Your task to perform on an android device: Is it going to rain today? Image 0: 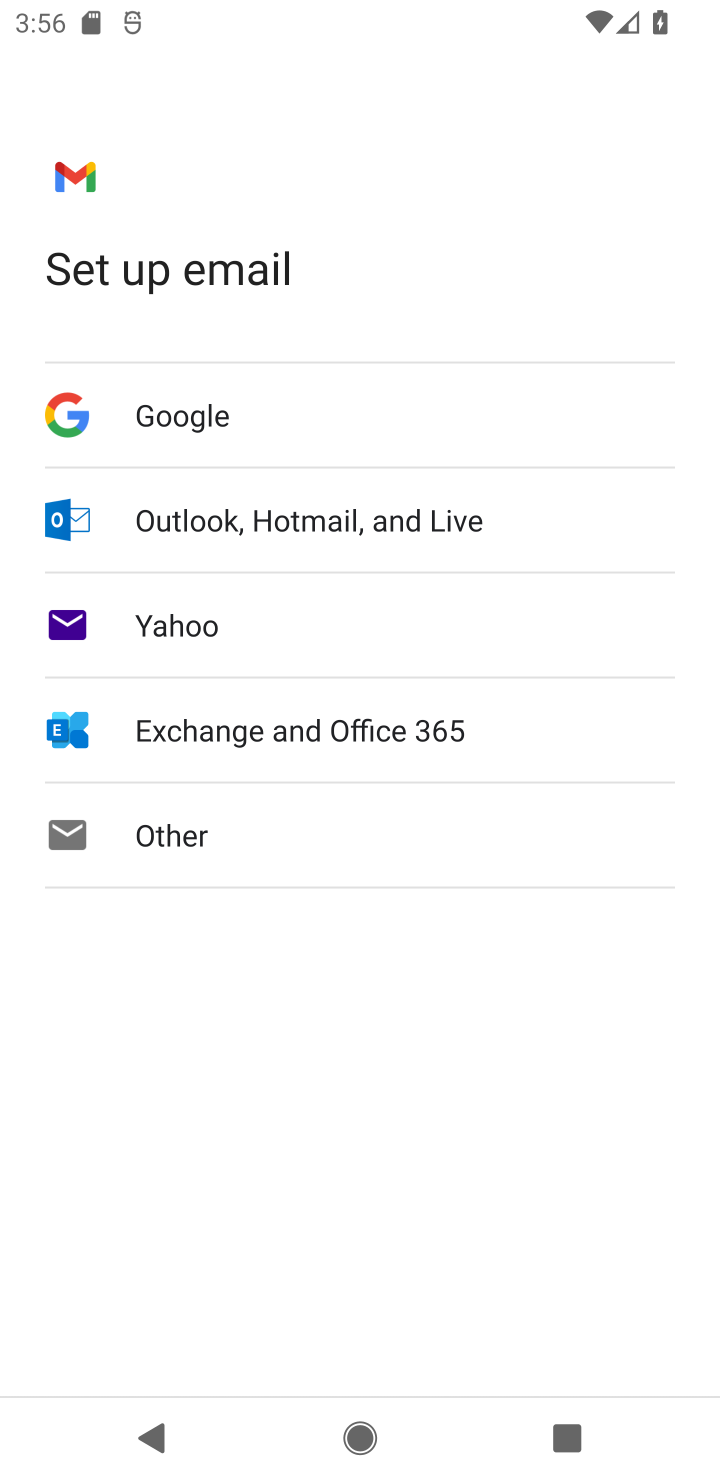
Step 0: press back button
Your task to perform on an android device: Is it going to rain today? Image 1: 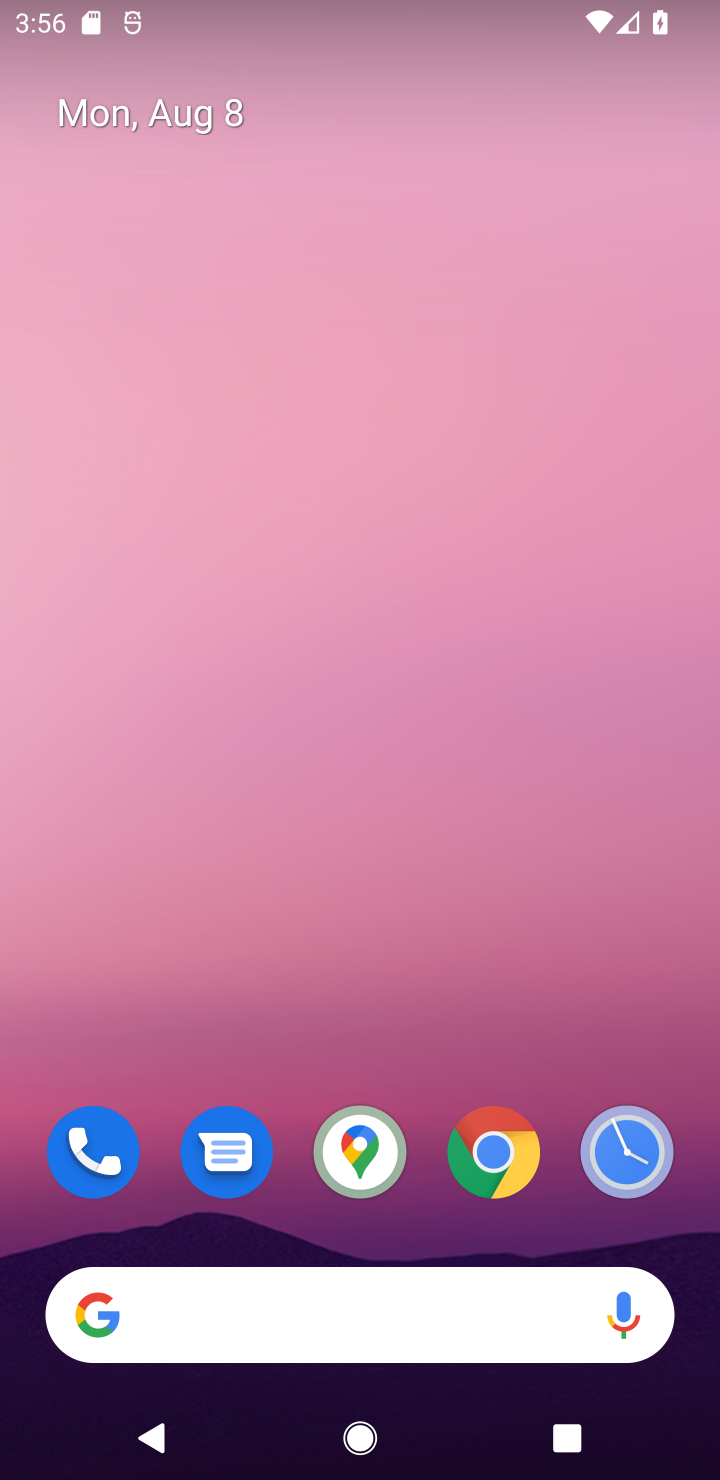
Step 1: drag from (422, 768) to (491, 23)
Your task to perform on an android device: Is it going to rain today? Image 2: 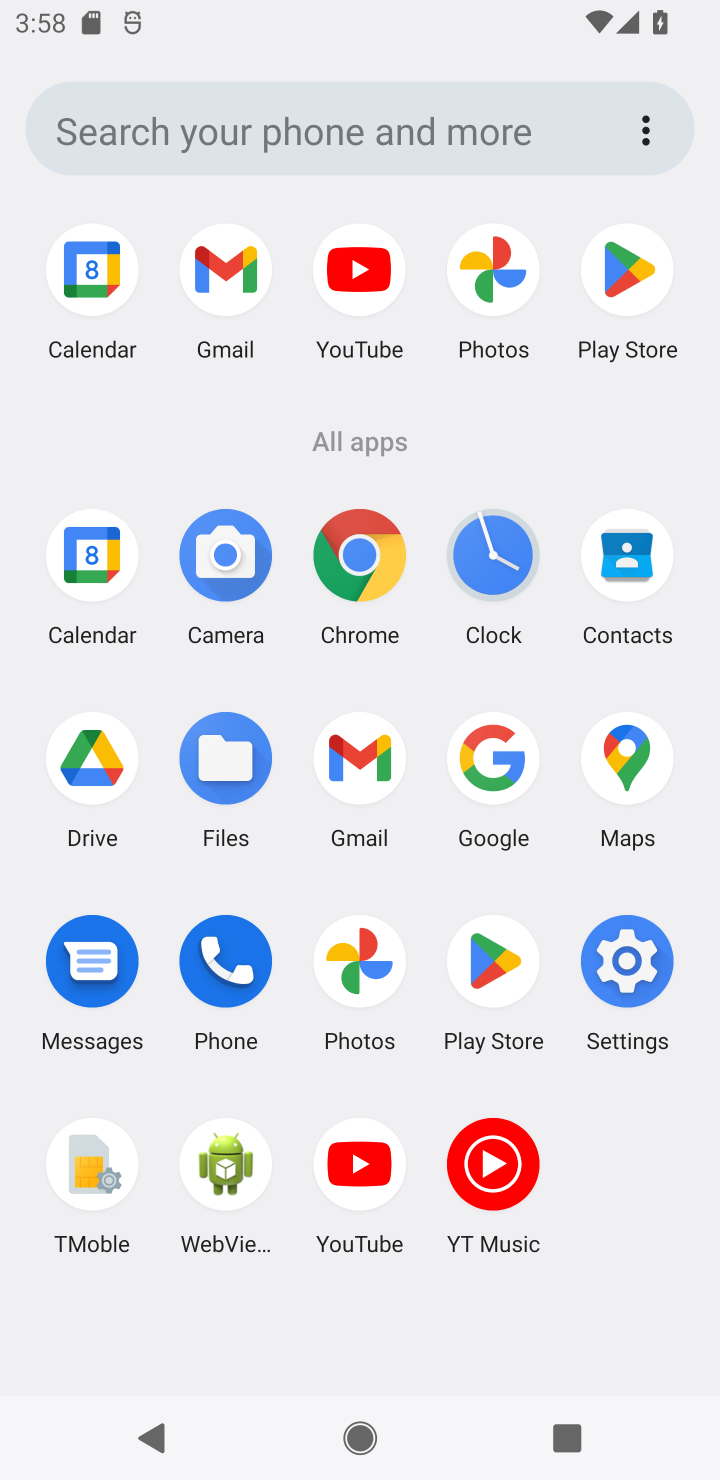
Step 2: click (270, 121)
Your task to perform on an android device: Is it going to rain today? Image 3: 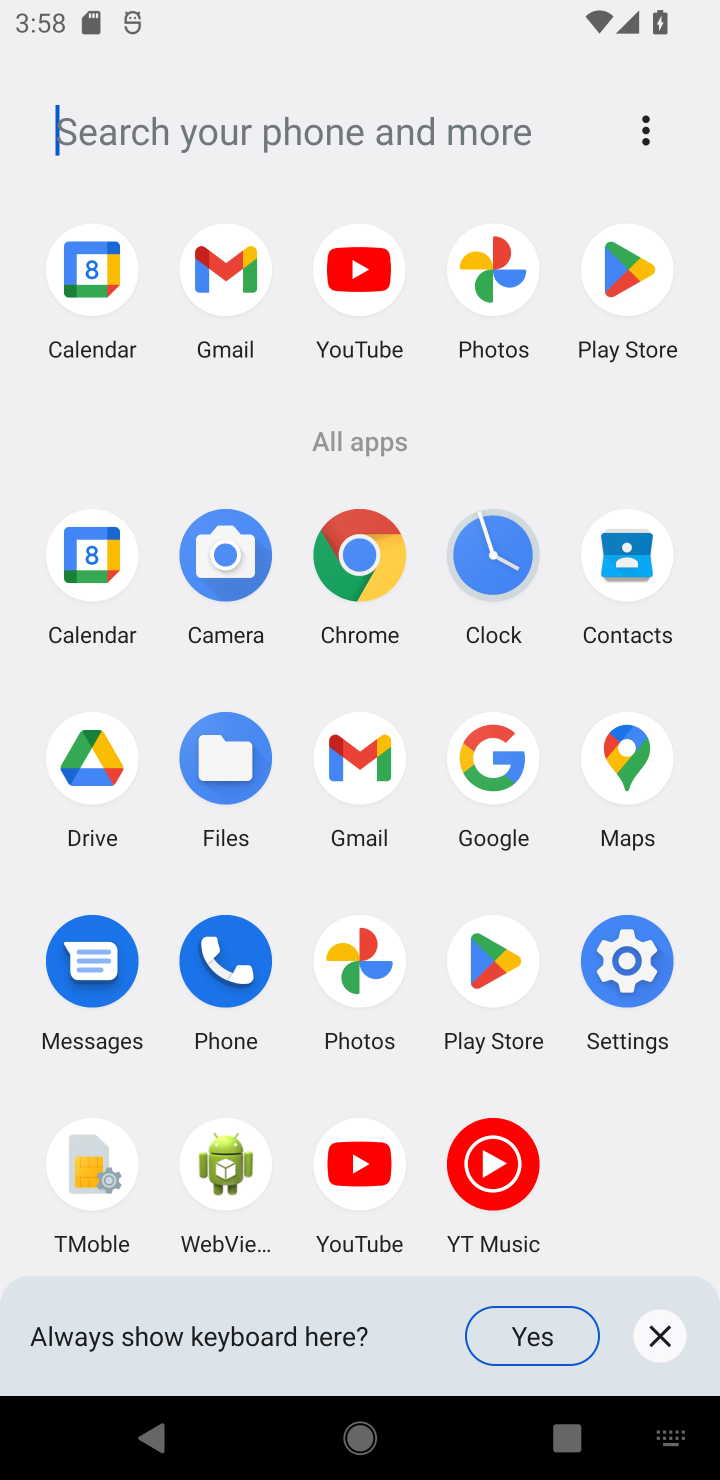
Step 3: click (253, 140)
Your task to perform on an android device: Is it going to rain today? Image 4: 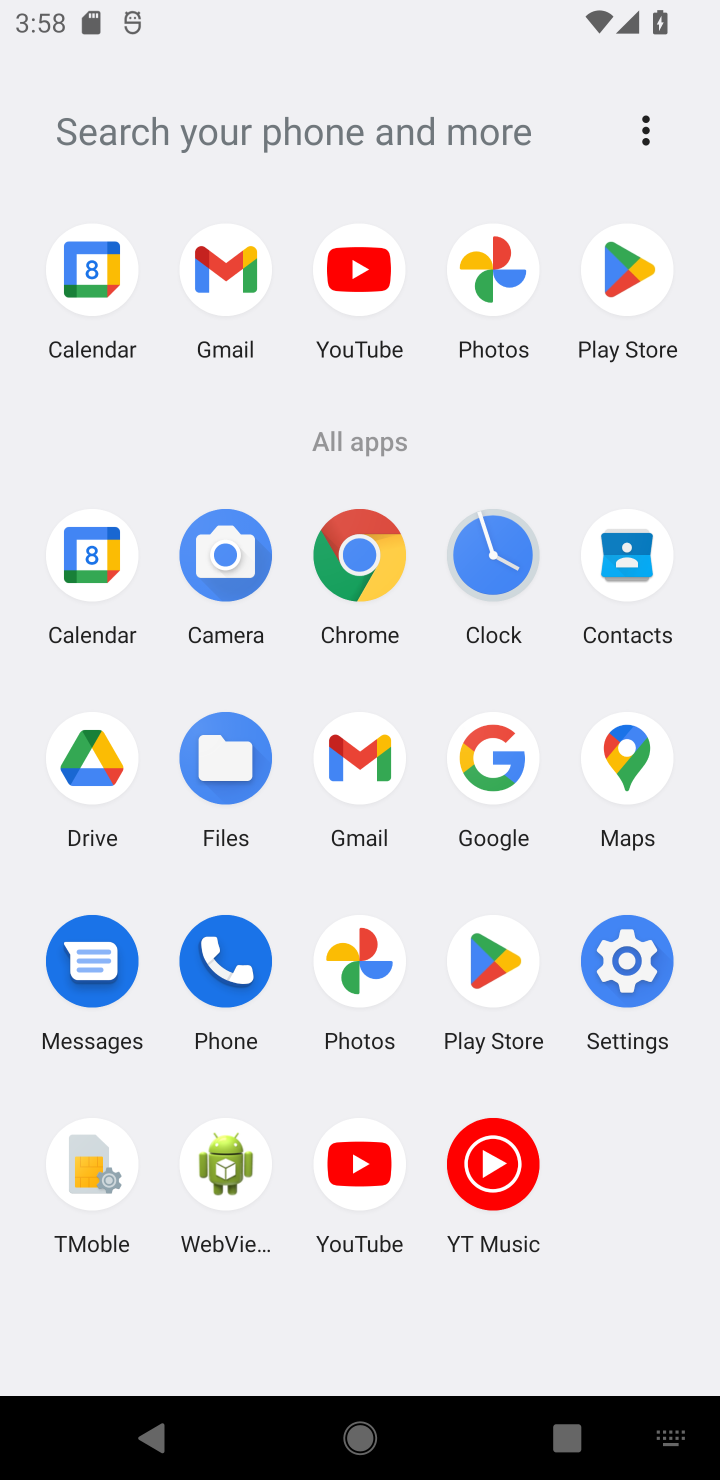
Step 4: click (477, 763)
Your task to perform on an android device: Is it going to rain today? Image 5: 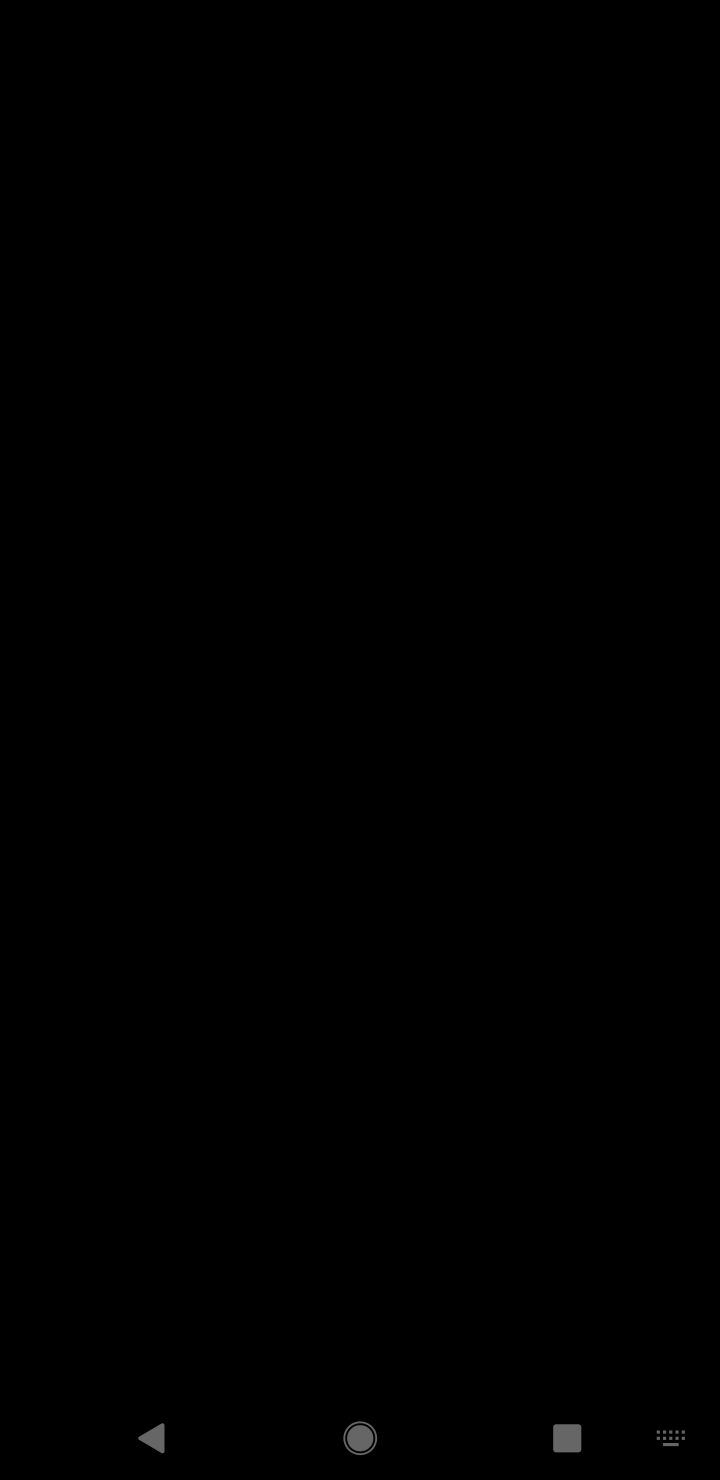
Step 5: drag from (219, 224) to (264, 101)
Your task to perform on an android device: Is it going to rain today? Image 6: 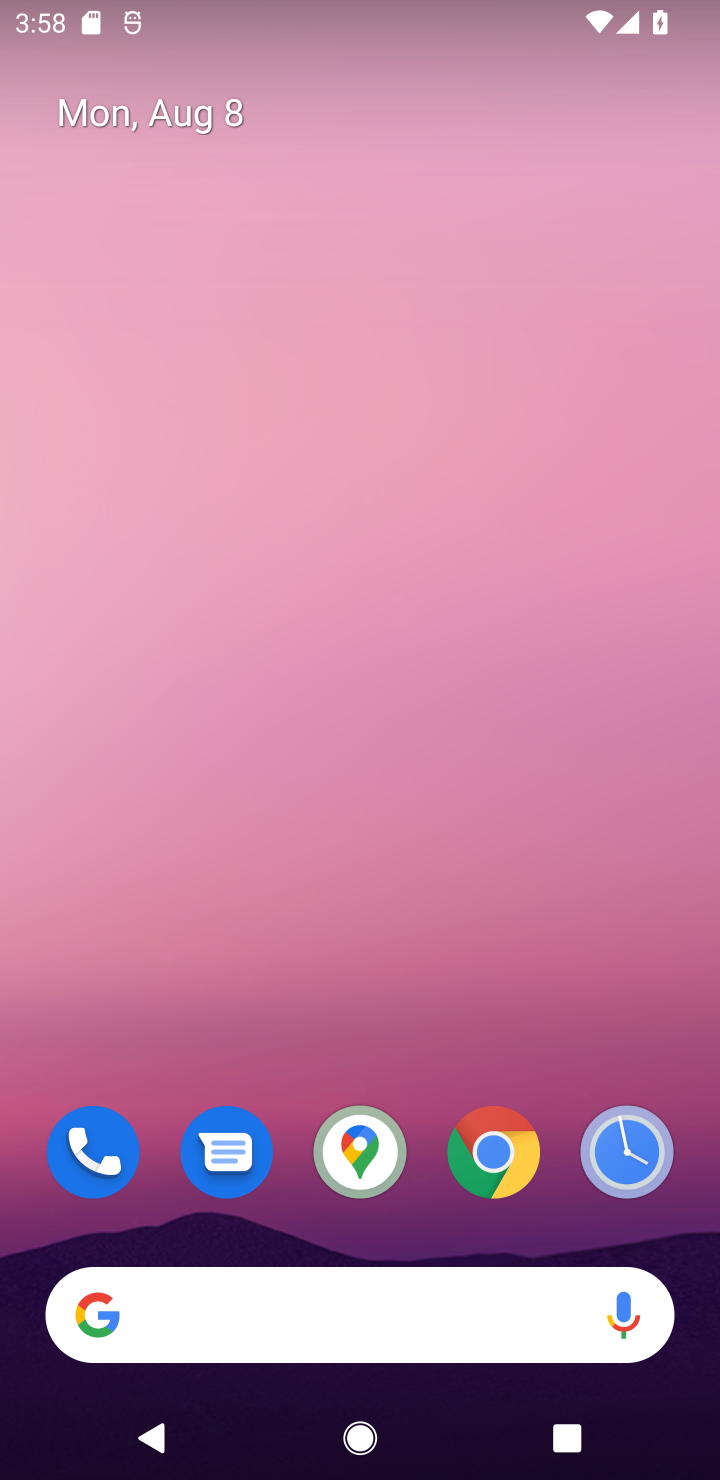
Step 6: click (455, 68)
Your task to perform on an android device: Is it going to rain today? Image 7: 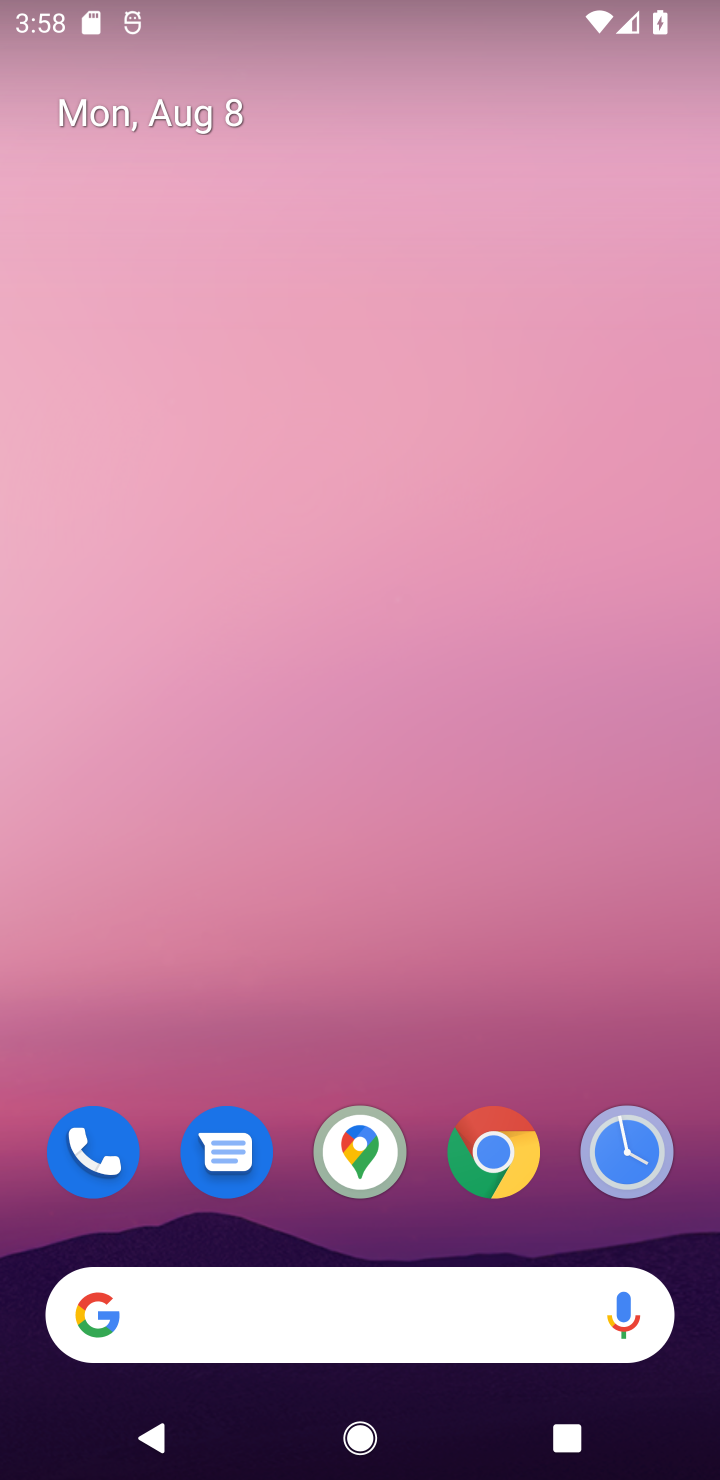
Step 7: drag from (282, 944) to (480, 47)
Your task to perform on an android device: Is it going to rain today? Image 8: 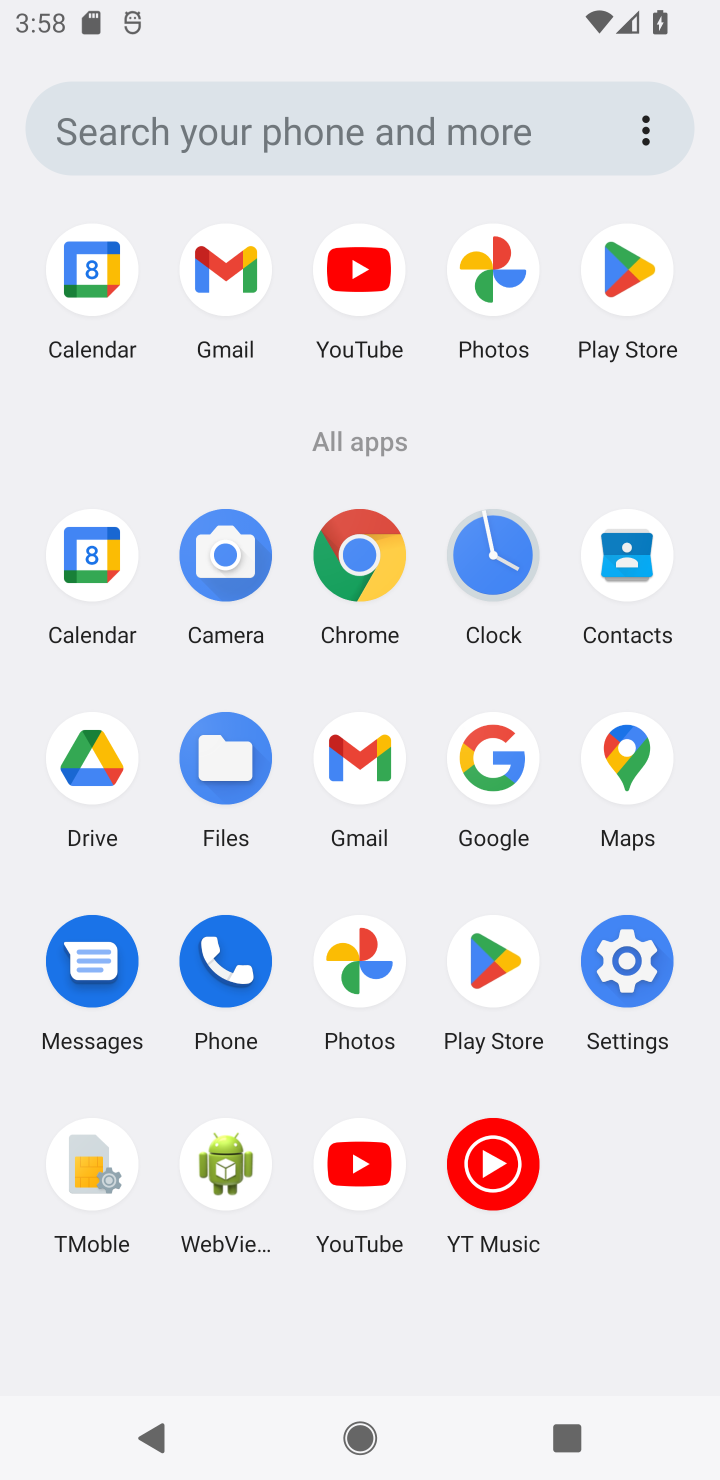
Step 8: click (487, 761)
Your task to perform on an android device: Is it going to rain today? Image 9: 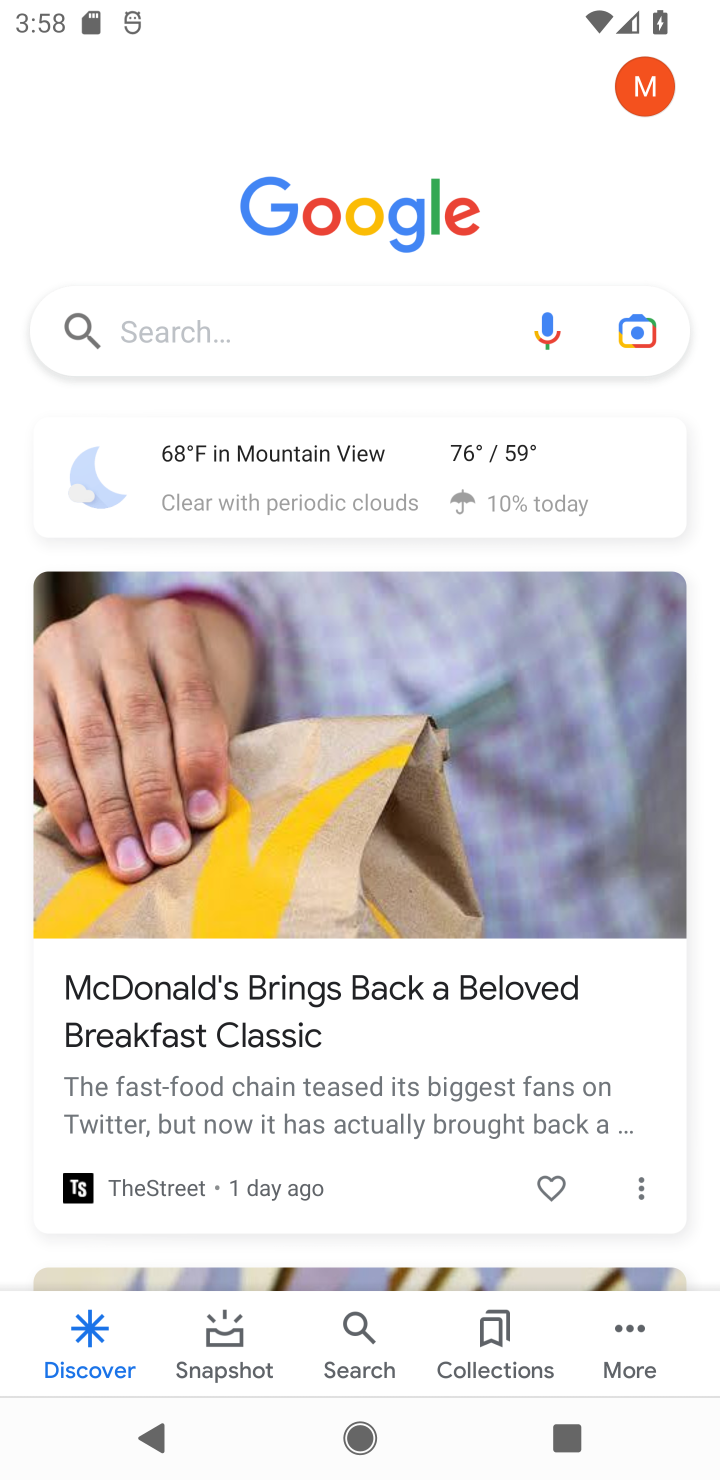
Step 9: click (278, 358)
Your task to perform on an android device: Is it going to rain today? Image 10: 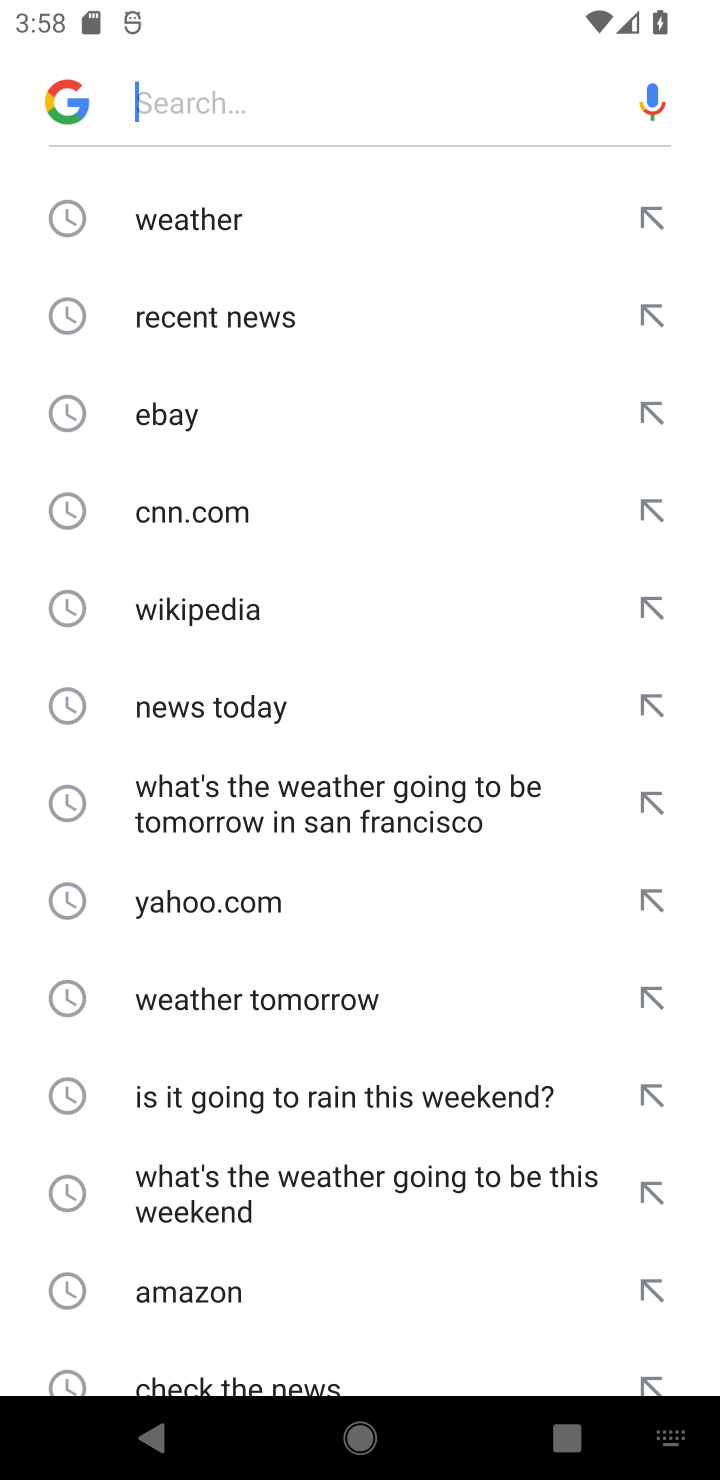
Step 10: click (254, 216)
Your task to perform on an android device: Is it going to rain today? Image 11: 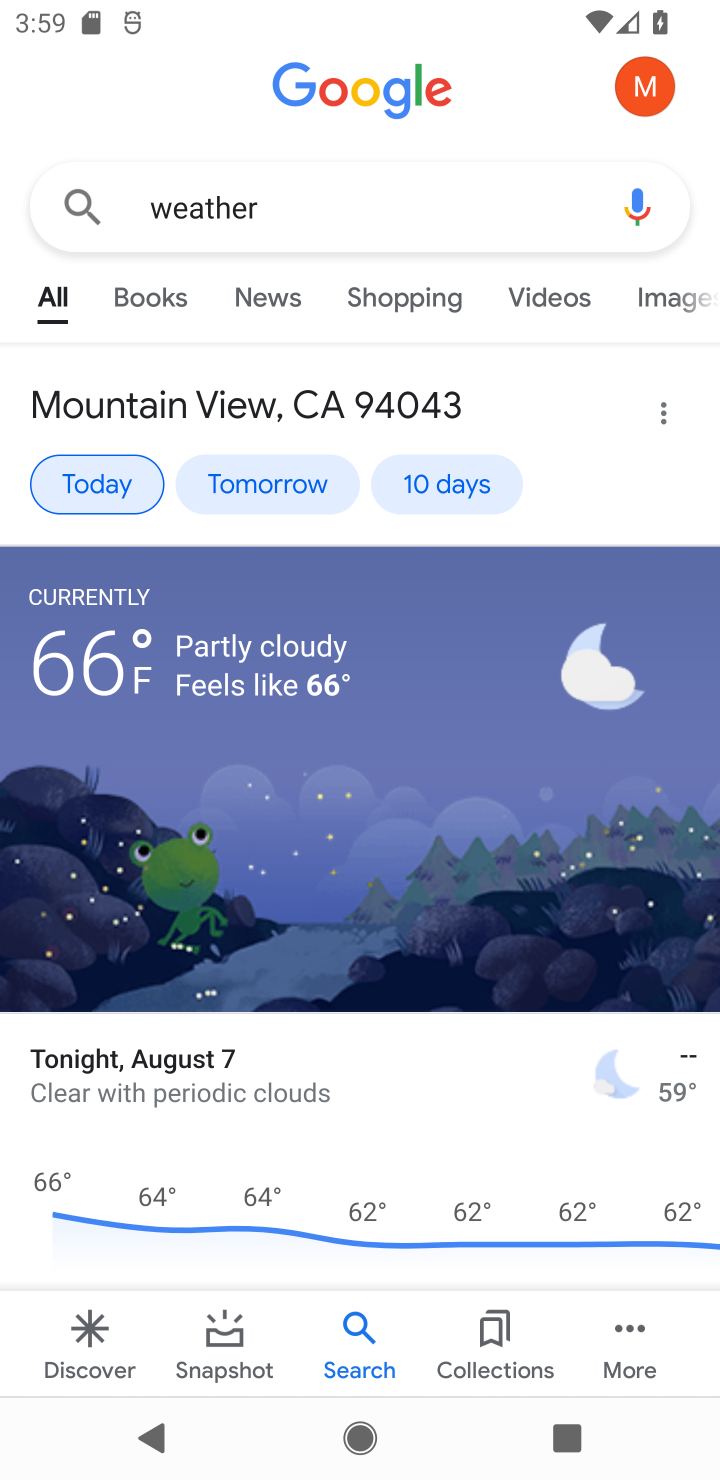
Step 11: task complete